Your task to perform on an android device: turn off notifications settings in the gmail app Image 0: 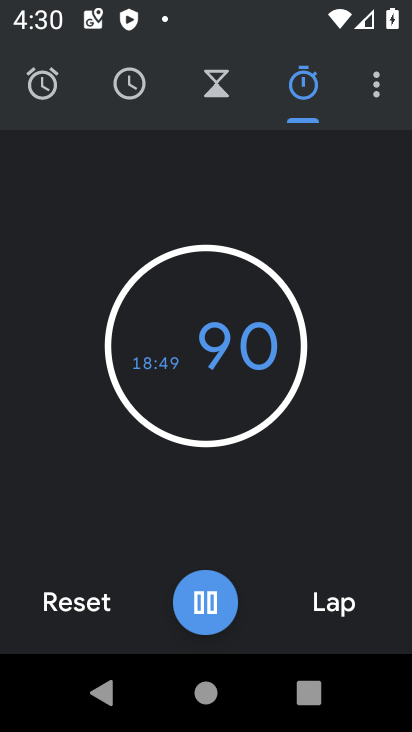
Step 0: press home button
Your task to perform on an android device: turn off notifications settings in the gmail app Image 1: 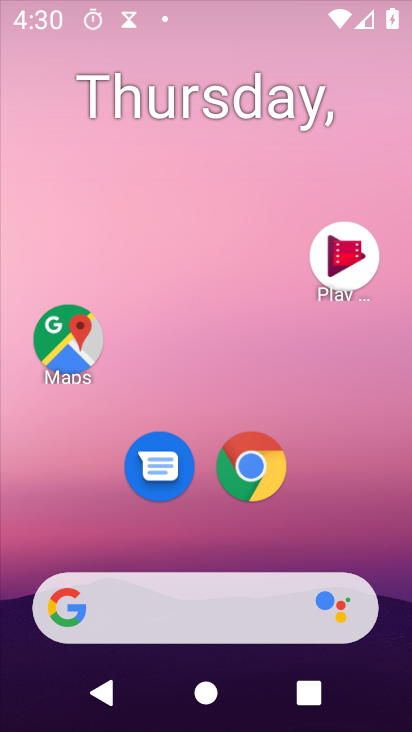
Step 1: drag from (161, 665) to (208, 46)
Your task to perform on an android device: turn off notifications settings in the gmail app Image 2: 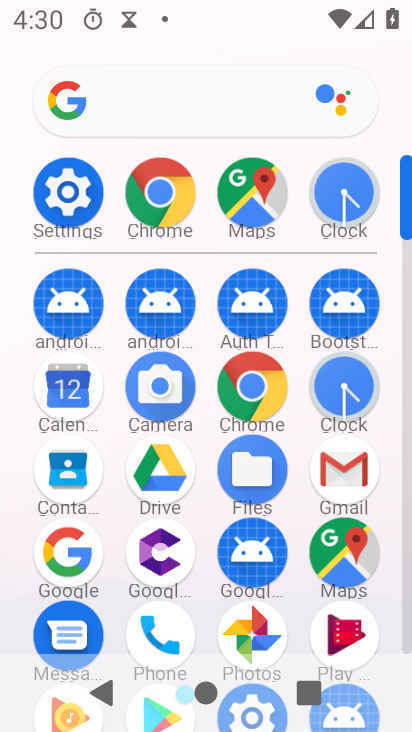
Step 2: click (320, 478)
Your task to perform on an android device: turn off notifications settings in the gmail app Image 3: 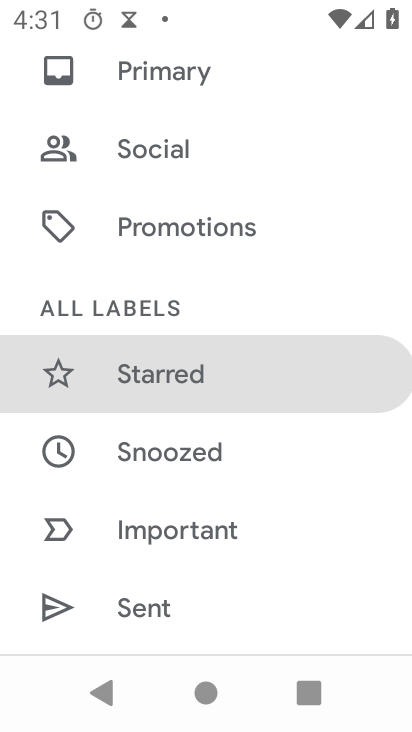
Step 3: drag from (245, 145) to (266, 720)
Your task to perform on an android device: turn off notifications settings in the gmail app Image 4: 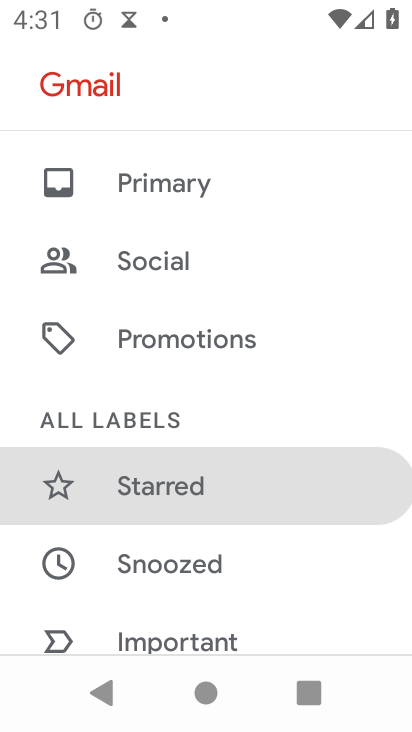
Step 4: drag from (227, 626) to (202, 9)
Your task to perform on an android device: turn off notifications settings in the gmail app Image 5: 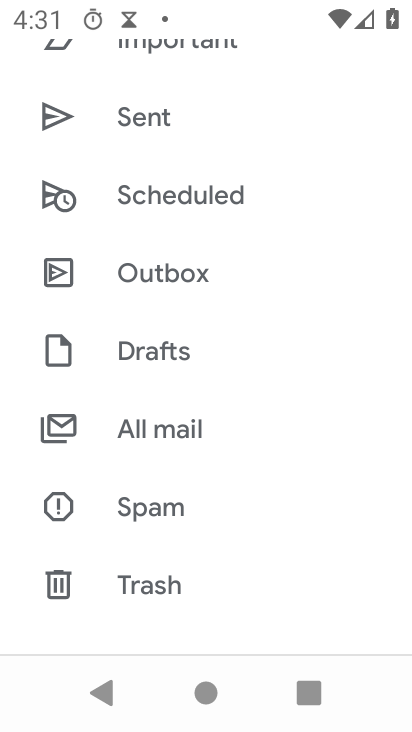
Step 5: drag from (176, 588) to (261, 63)
Your task to perform on an android device: turn off notifications settings in the gmail app Image 6: 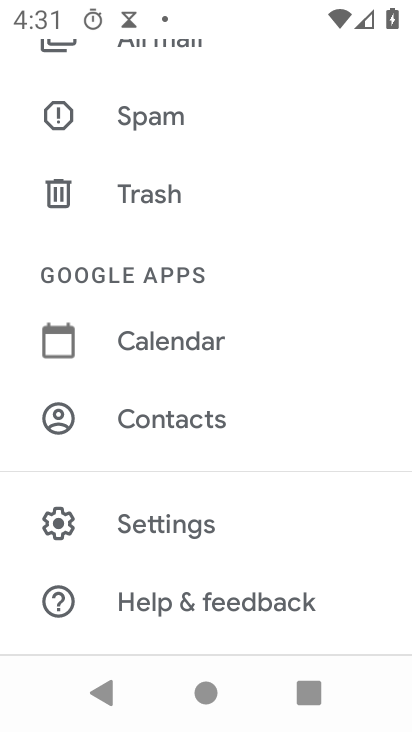
Step 6: click (196, 535)
Your task to perform on an android device: turn off notifications settings in the gmail app Image 7: 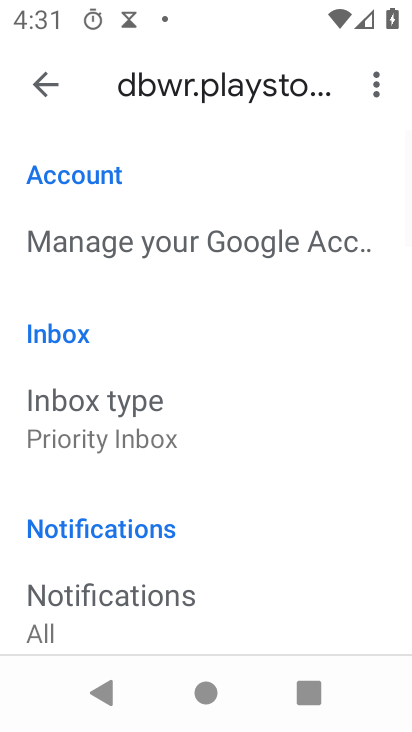
Step 7: drag from (263, 638) to (280, 176)
Your task to perform on an android device: turn off notifications settings in the gmail app Image 8: 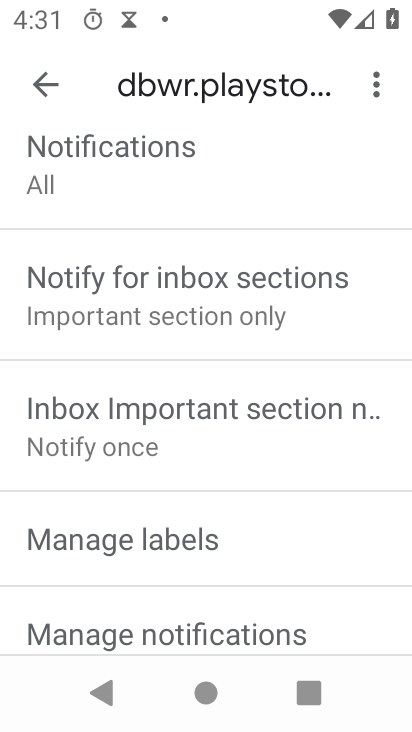
Step 8: click (116, 627)
Your task to perform on an android device: turn off notifications settings in the gmail app Image 9: 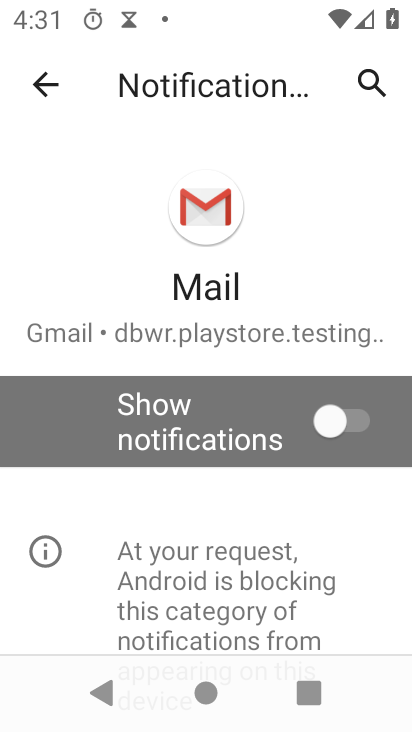
Step 9: click (351, 416)
Your task to perform on an android device: turn off notifications settings in the gmail app Image 10: 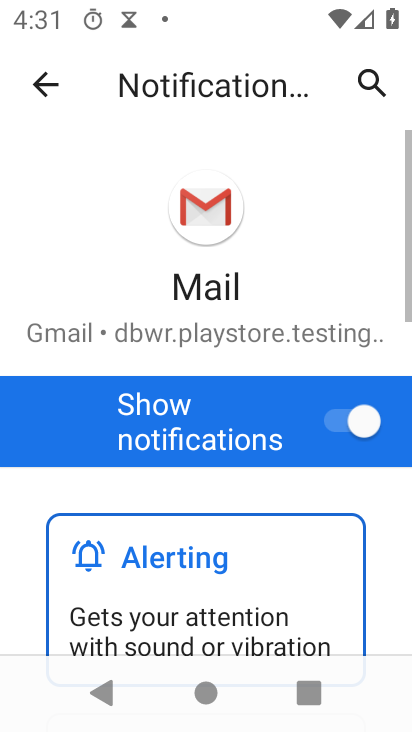
Step 10: task complete